Your task to perform on an android device: refresh tabs in the chrome app Image 0: 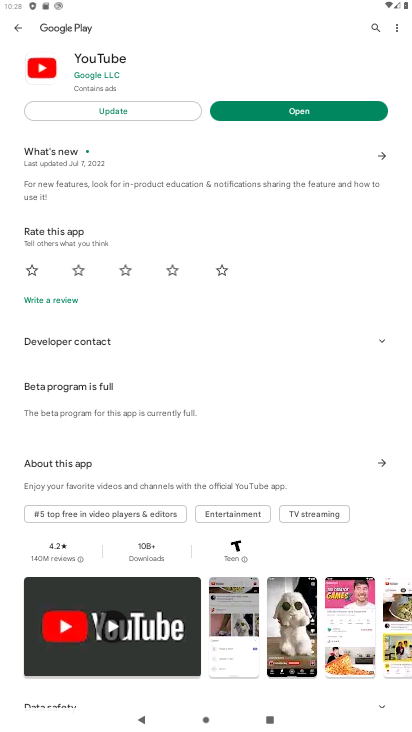
Step 0: press home button
Your task to perform on an android device: refresh tabs in the chrome app Image 1: 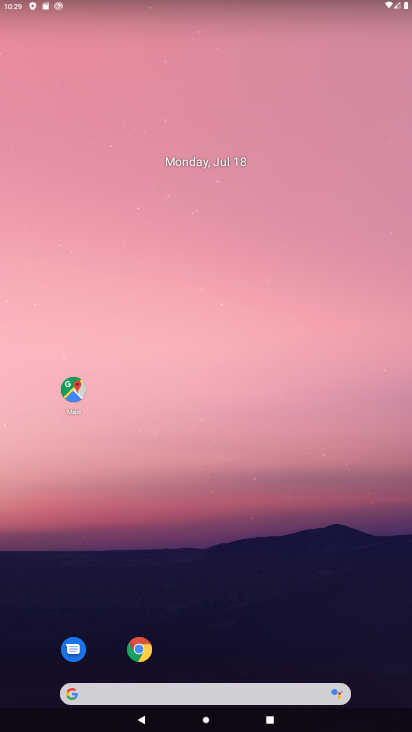
Step 1: click (136, 650)
Your task to perform on an android device: refresh tabs in the chrome app Image 2: 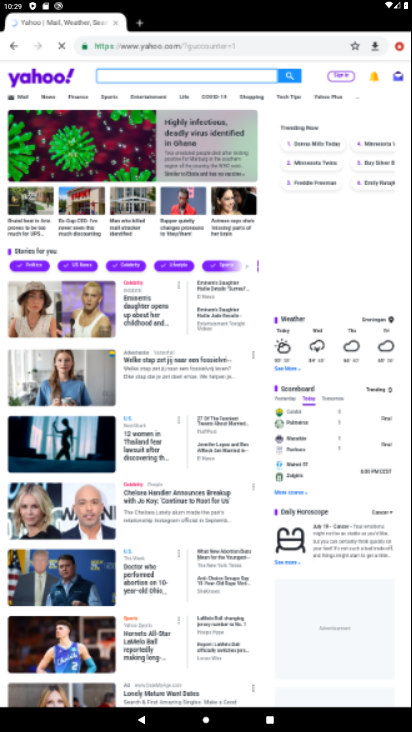
Step 2: click (400, 45)
Your task to perform on an android device: refresh tabs in the chrome app Image 3: 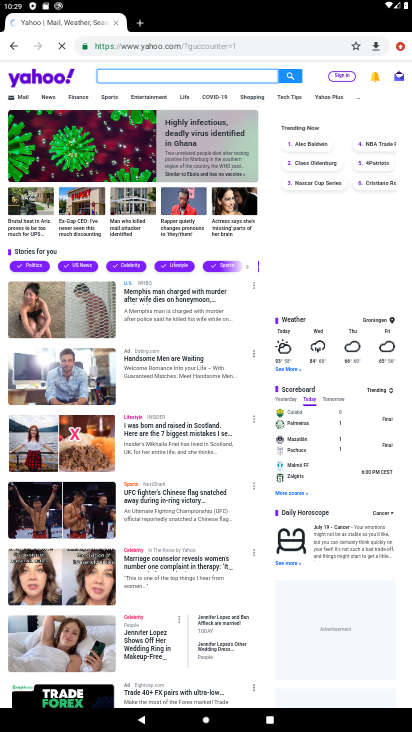
Step 3: click (398, 45)
Your task to perform on an android device: refresh tabs in the chrome app Image 4: 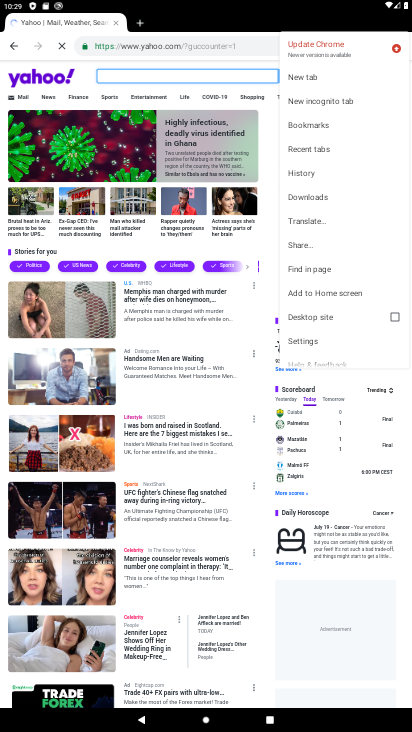
Step 4: click (295, 74)
Your task to perform on an android device: refresh tabs in the chrome app Image 5: 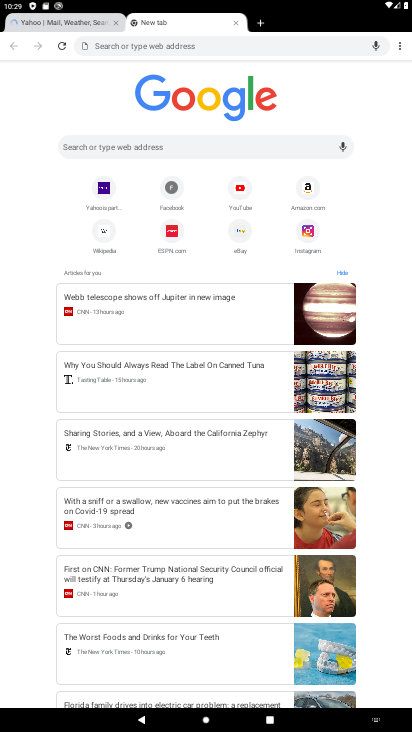
Step 5: click (61, 44)
Your task to perform on an android device: refresh tabs in the chrome app Image 6: 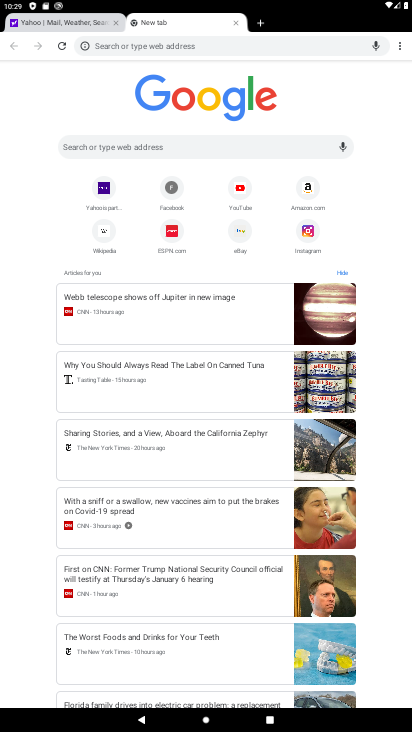
Step 6: task complete